Your task to perform on an android device: change the clock display to show seconds Image 0: 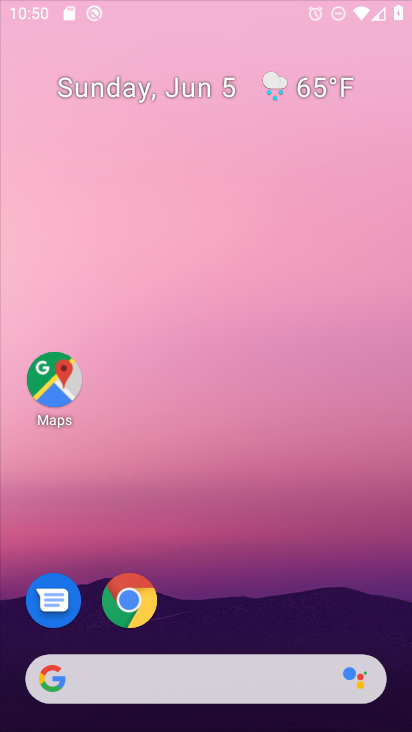
Step 0: drag from (387, 610) to (272, 62)
Your task to perform on an android device: change the clock display to show seconds Image 1: 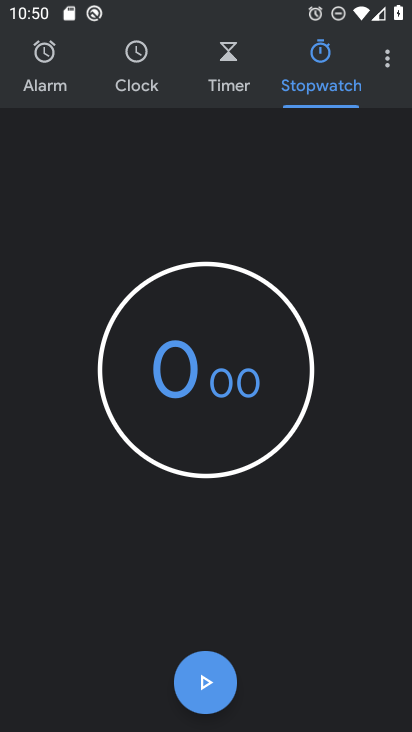
Step 1: press home button
Your task to perform on an android device: change the clock display to show seconds Image 2: 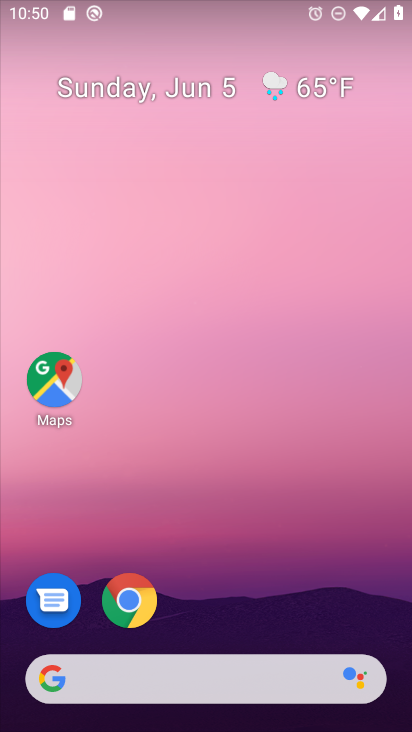
Step 2: drag from (386, 623) to (296, 98)
Your task to perform on an android device: change the clock display to show seconds Image 3: 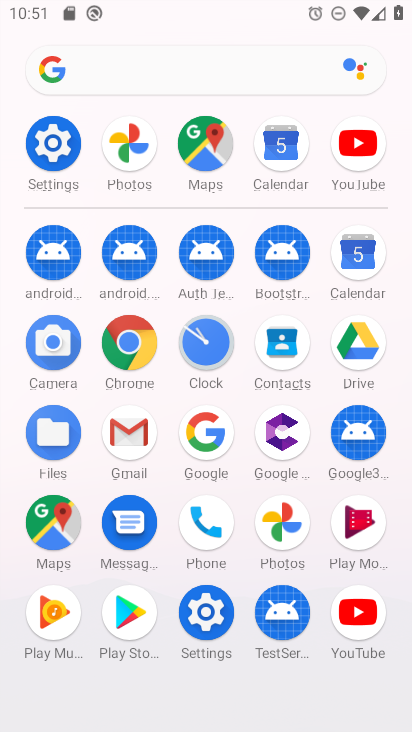
Step 3: click (199, 340)
Your task to perform on an android device: change the clock display to show seconds Image 4: 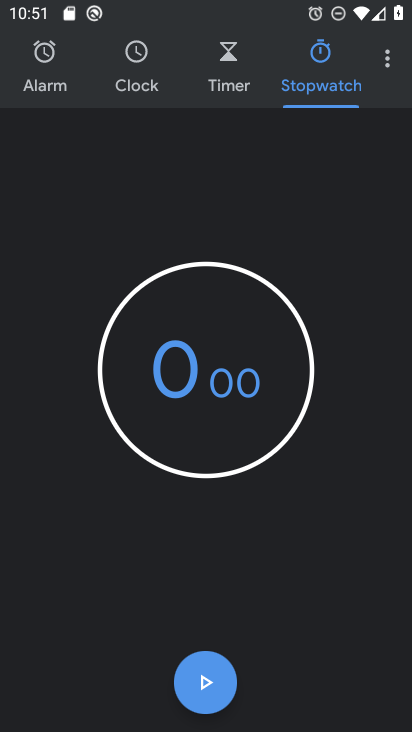
Step 4: click (387, 54)
Your task to perform on an android device: change the clock display to show seconds Image 5: 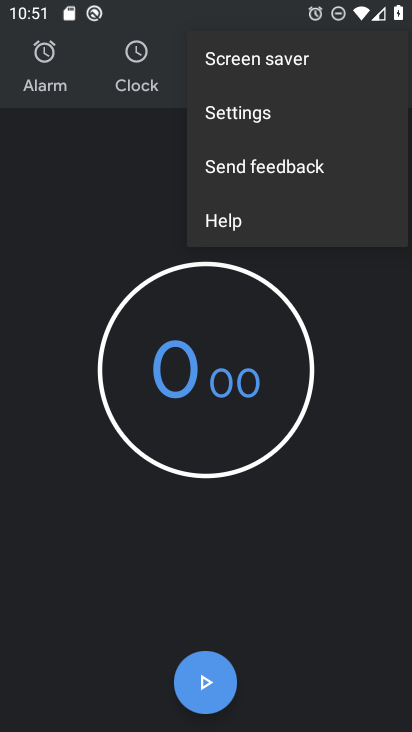
Step 5: click (278, 112)
Your task to perform on an android device: change the clock display to show seconds Image 6: 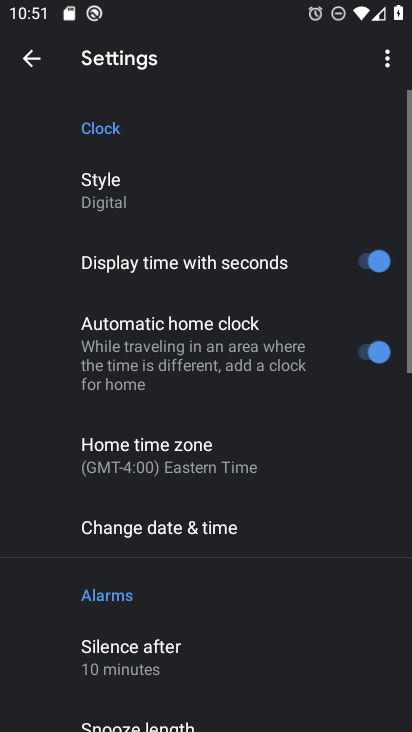
Step 6: click (373, 278)
Your task to perform on an android device: change the clock display to show seconds Image 7: 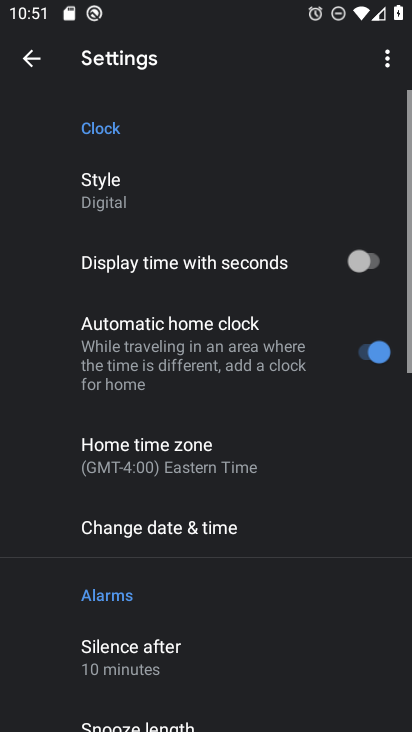
Step 7: task complete